Your task to perform on an android device: toggle sleep mode Image 0: 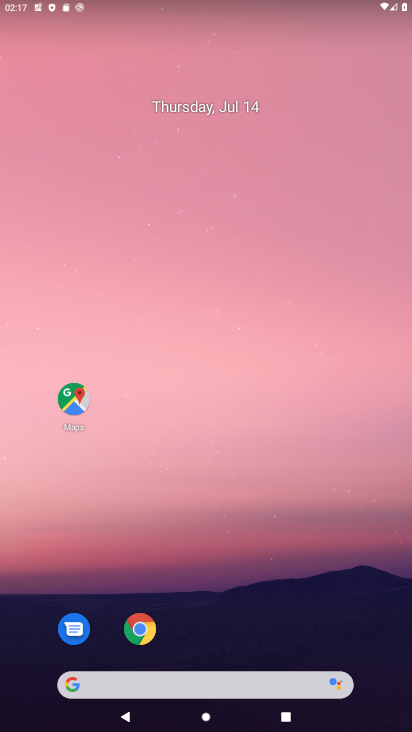
Step 0: drag from (210, 620) to (211, 25)
Your task to perform on an android device: toggle sleep mode Image 1: 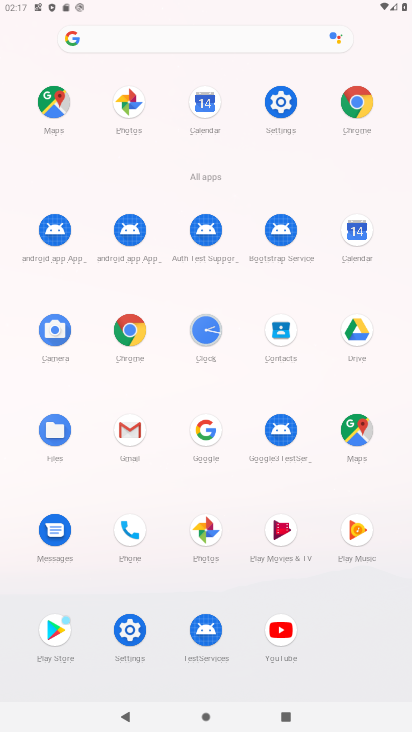
Step 1: click (280, 118)
Your task to perform on an android device: toggle sleep mode Image 2: 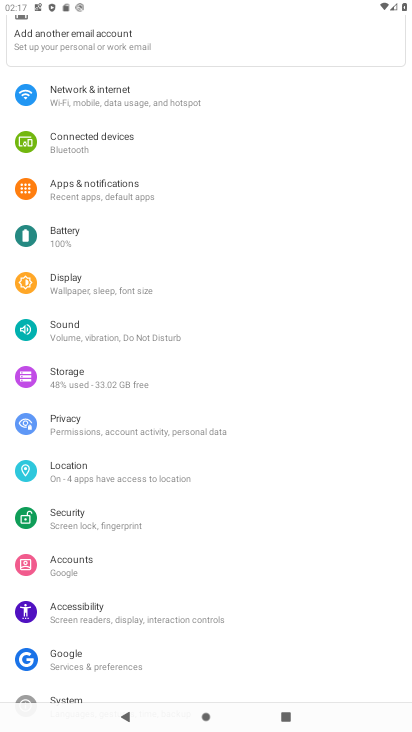
Step 2: drag from (222, 91) to (230, 619)
Your task to perform on an android device: toggle sleep mode Image 3: 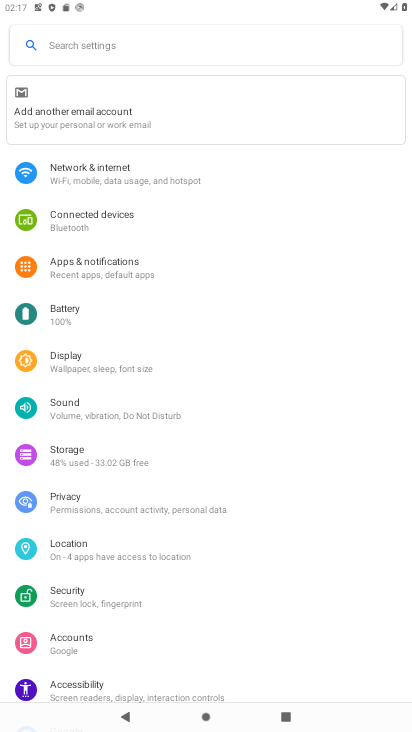
Step 3: click (190, 41)
Your task to perform on an android device: toggle sleep mode Image 4: 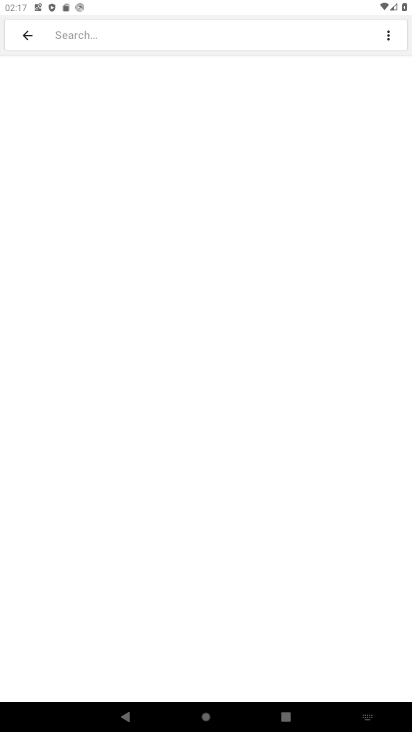
Step 4: type "sleep mode"
Your task to perform on an android device: toggle sleep mode Image 5: 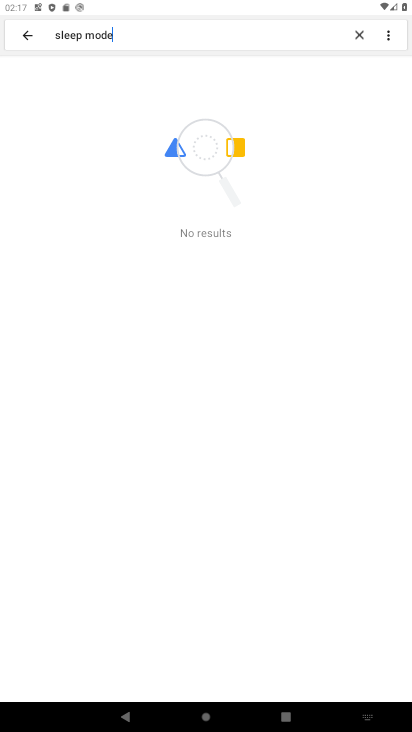
Step 5: task complete